Your task to perform on an android device: refresh tabs in the chrome app Image 0: 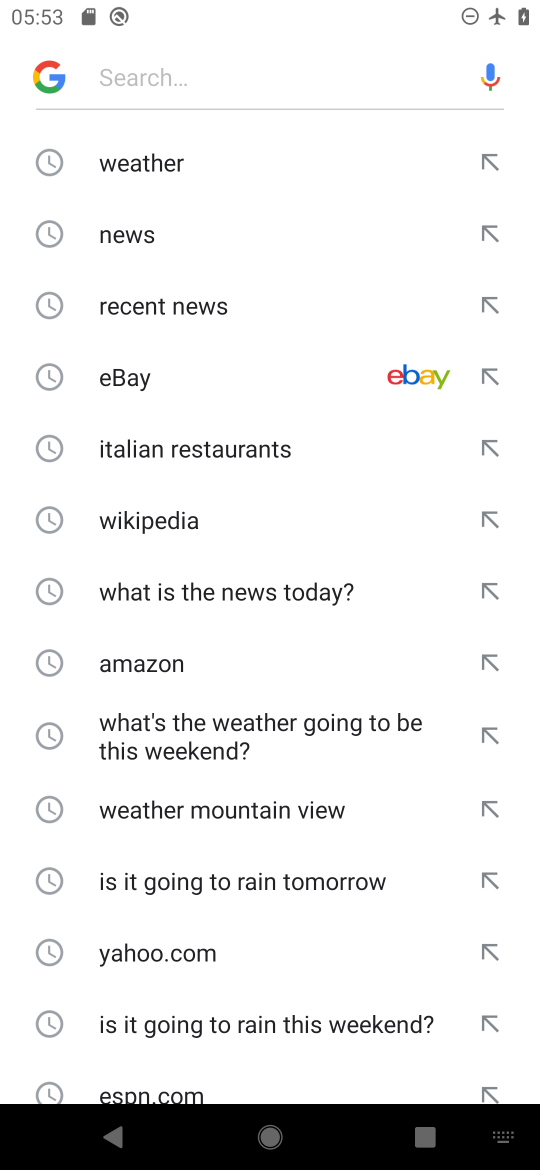
Step 0: press back button
Your task to perform on an android device: refresh tabs in the chrome app Image 1: 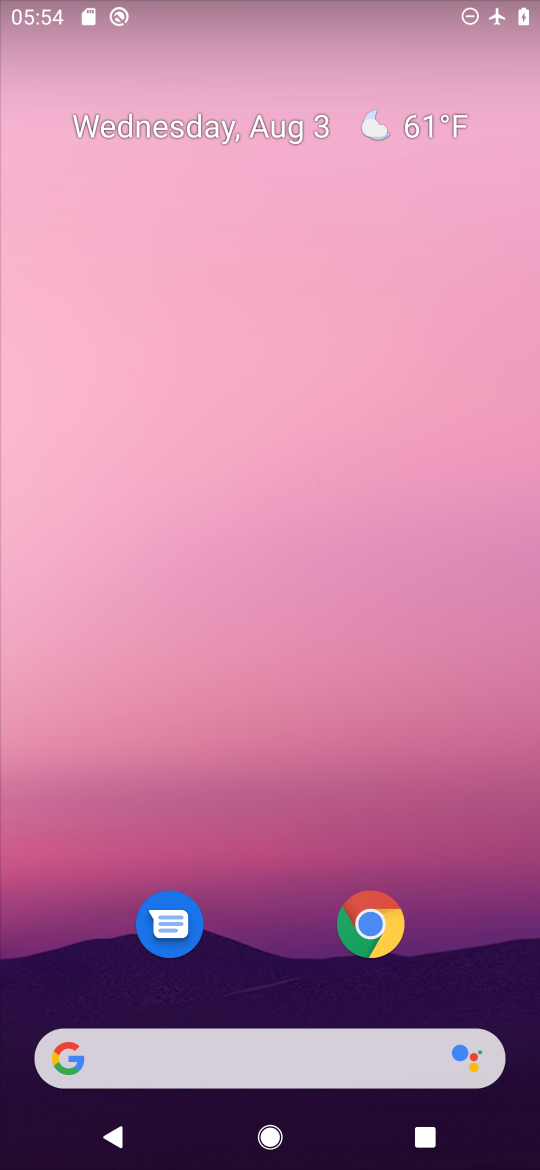
Step 1: click (377, 908)
Your task to perform on an android device: refresh tabs in the chrome app Image 2: 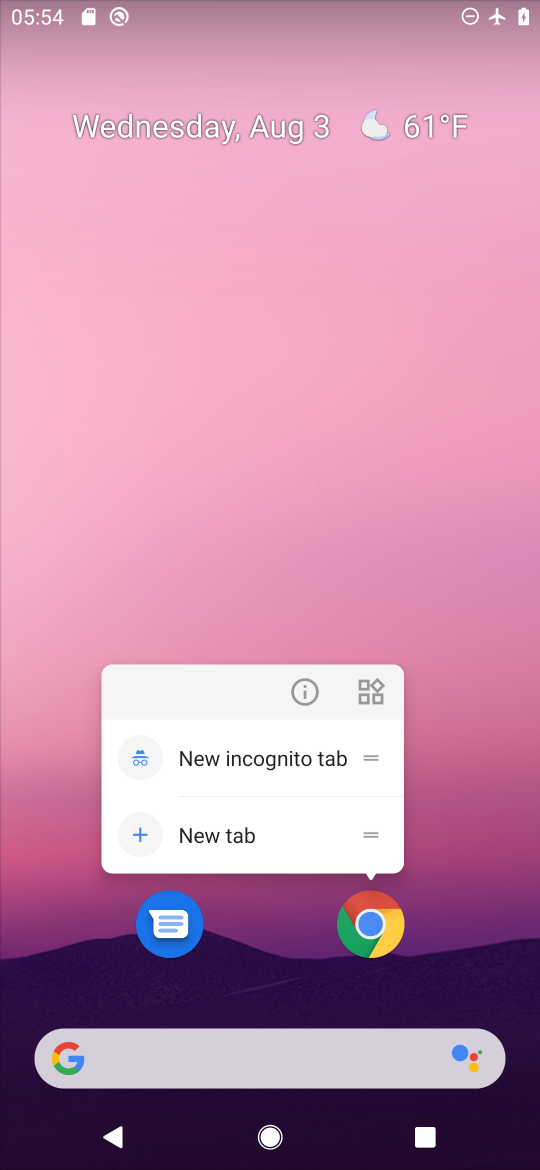
Step 2: click (359, 981)
Your task to perform on an android device: refresh tabs in the chrome app Image 3: 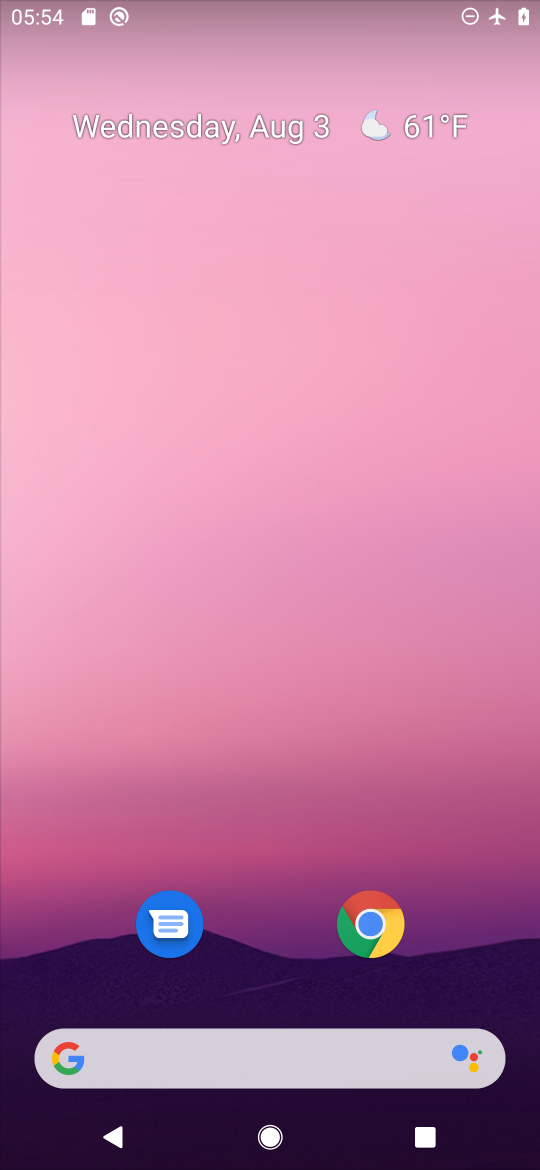
Step 3: click (365, 956)
Your task to perform on an android device: refresh tabs in the chrome app Image 4: 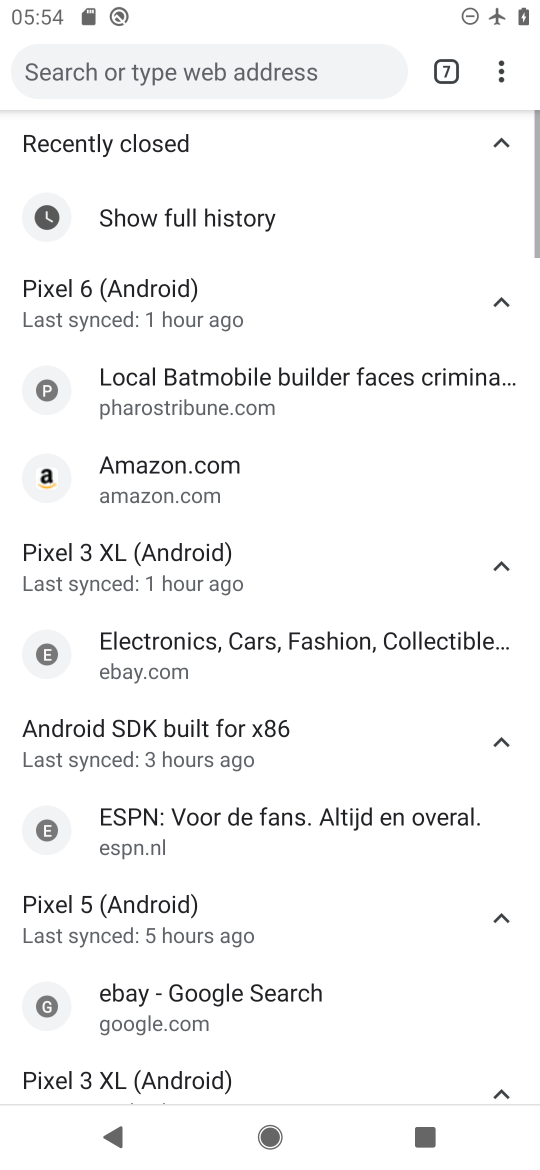
Step 4: click (537, 72)
Your task to perform on an android device: refresh tabs in the chrome app Image 5: 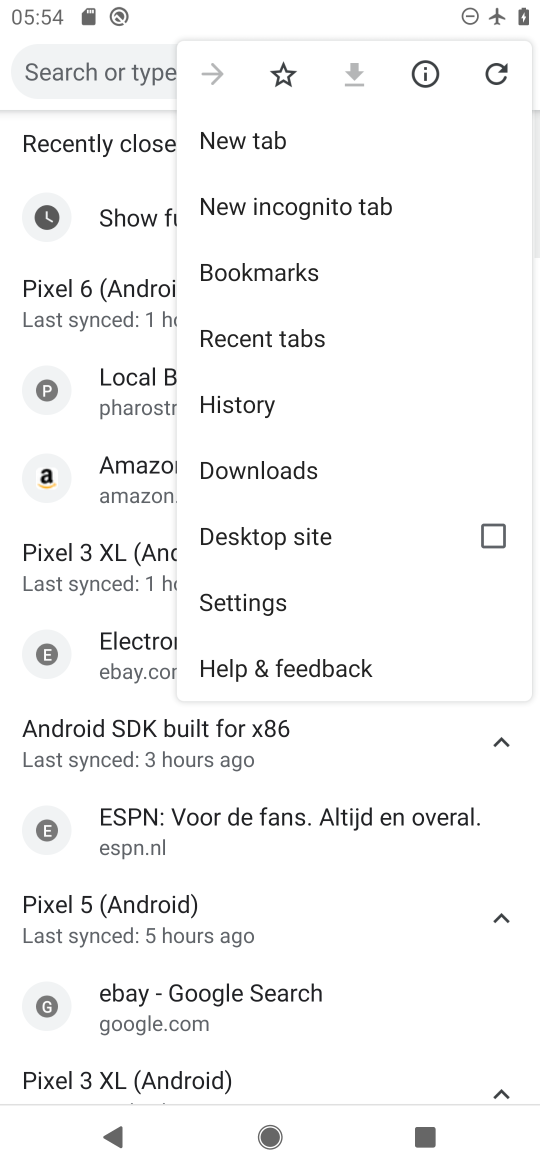
Step 5: click (496, 74)
Your task to perform on an android device: refresh tabs in the chrome app Image 6: 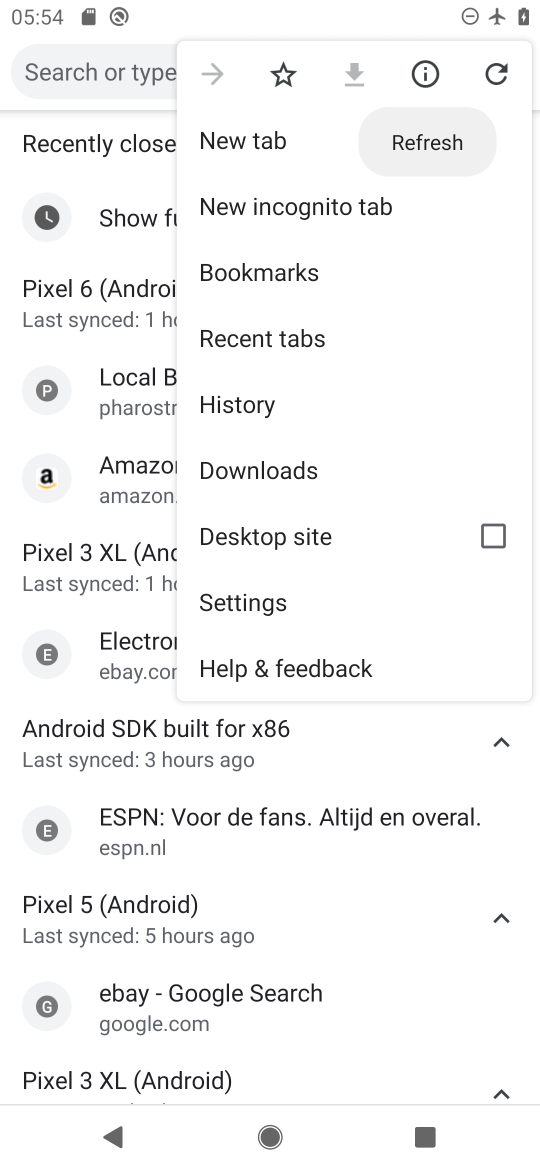
Step 6: task complete